Your task to perform on an android device: set an alarm Image 0: 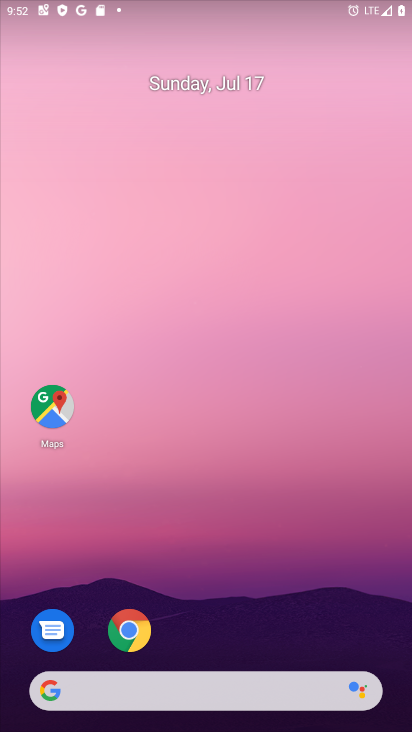
Step 0: press home button
Your task to perform on an android device: set an alarm Image 1: 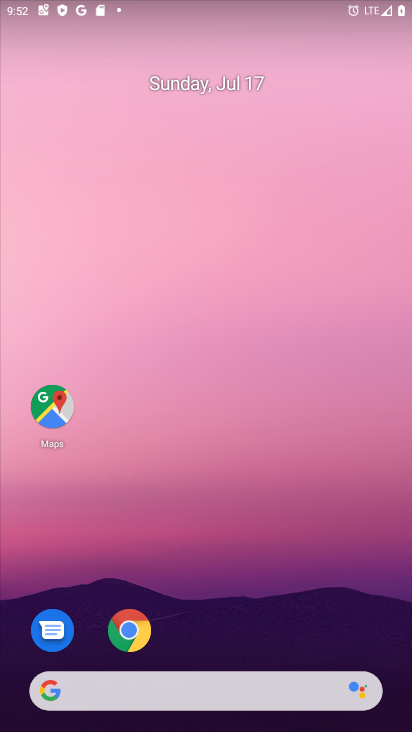
Step 1: drag from (209, 621) to (216, 93)
Your task to perform on an android device: set an alarm Image 2: 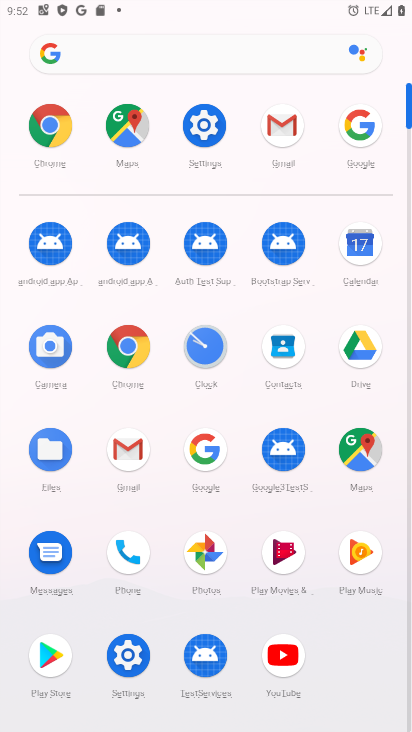
Step 2: click (196, 343)
Your task to perform on an android device: set an alarm Image 3: 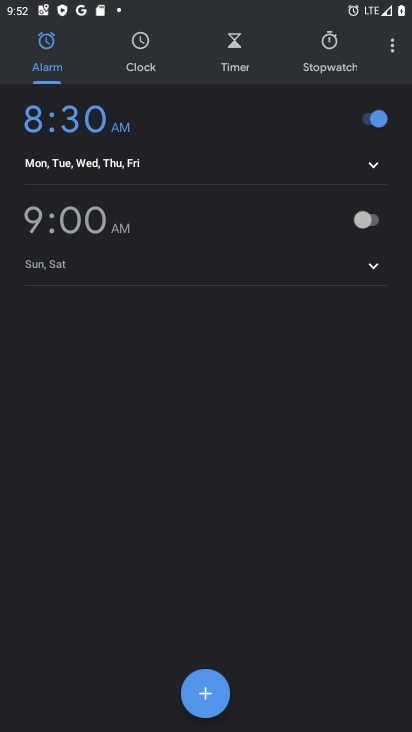
Step 3: click (364, 215)
Your task to perform on an android device: set an alarm Image 4: 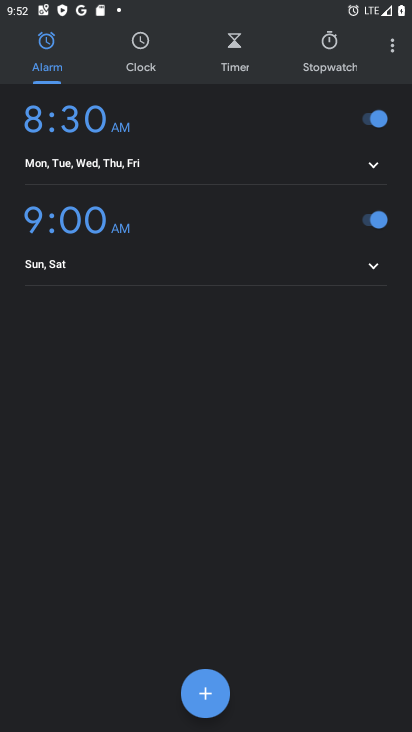
Step 4: task complete